Your task to perform on an android device: open a bookmark in the chrome app Image 0: 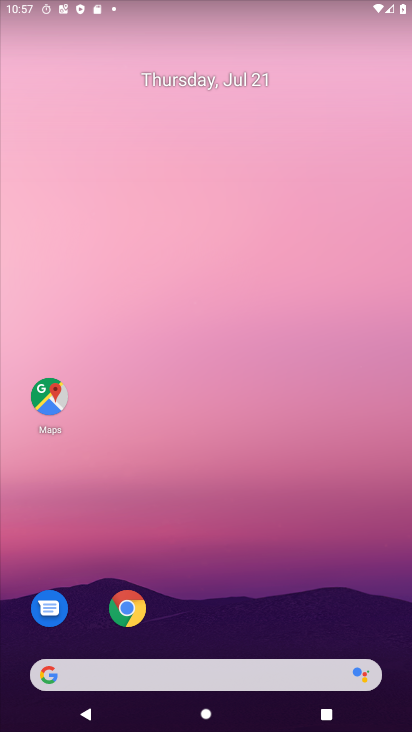
Step 0: click (125, 610)
Your task to perform on an android device: open a bookmark in the chrome app Image 1: 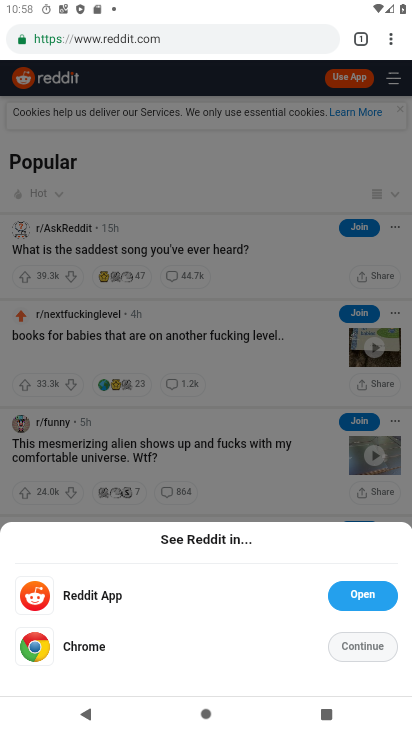
Step 1: click (388, 37)
Your task to perform on an android device: open a bookmark in the chrome app Image 2: 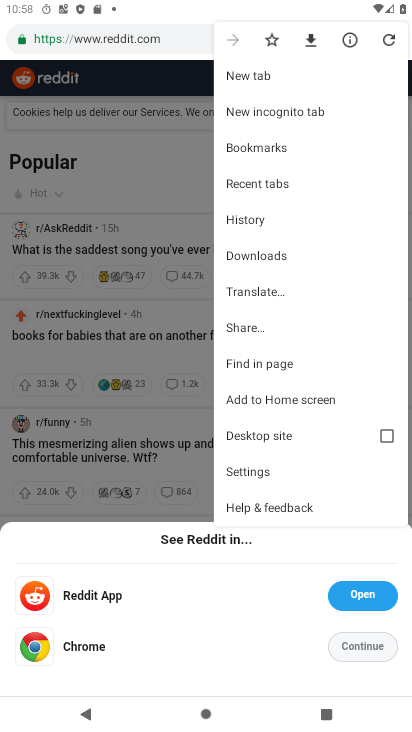
Step 2: click (249, 154)
Your task to perform on an android device: open a bookmark in the chrome app Image 3: 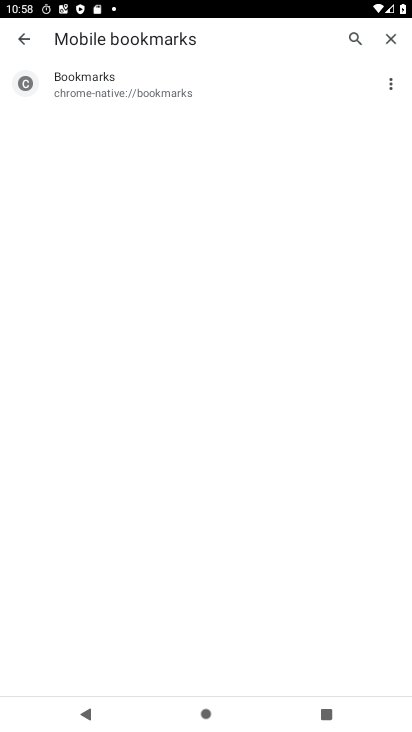
Step 3: task complete